Your task to perform on an android device: check the backup settings in the google photos Image 0: 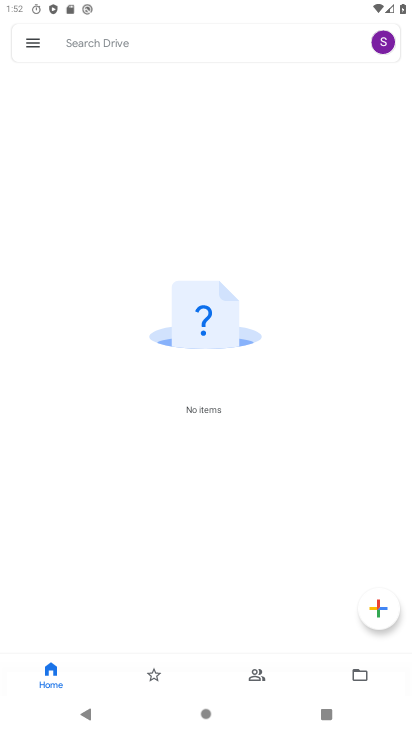
Step 0: click (0, 105)
Your task to perform on an android device: check the backup settings in the google photos Image 1: 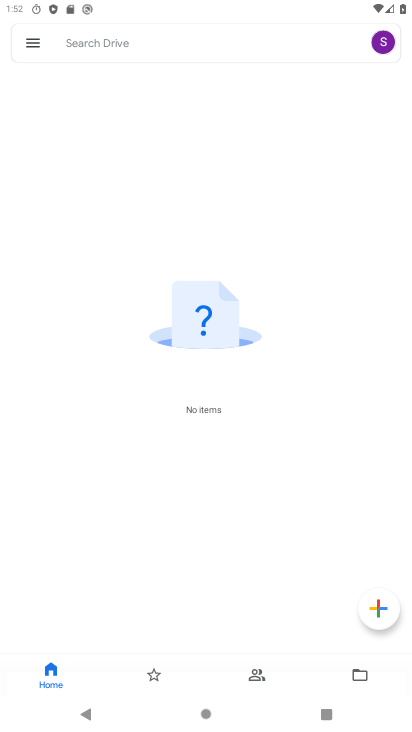
Step 1: drag from (280, 539) to (276, 414)
Your task to perform on an android device: check the backup settings in the google photos Image 2: 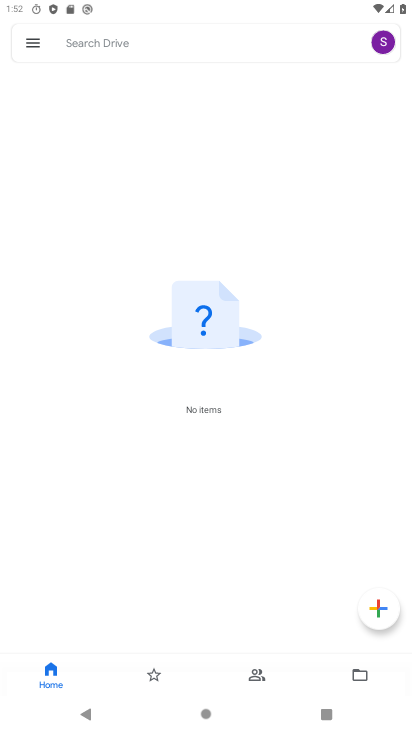
Step 2: drag from (274, 213) to (290, 572)
Your task to perform on an android device: check the backup settings in the google photos Image 3: 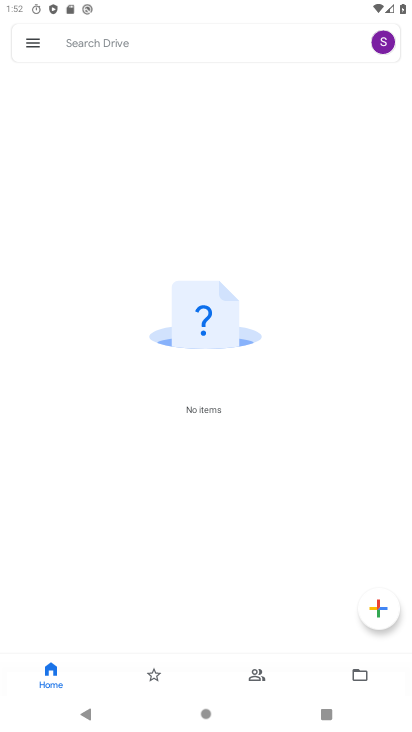
Step 3: drag from (229, 253) to (326, 723)
Your task to perform on an android device: check the backup settings in the google photos Image 4: 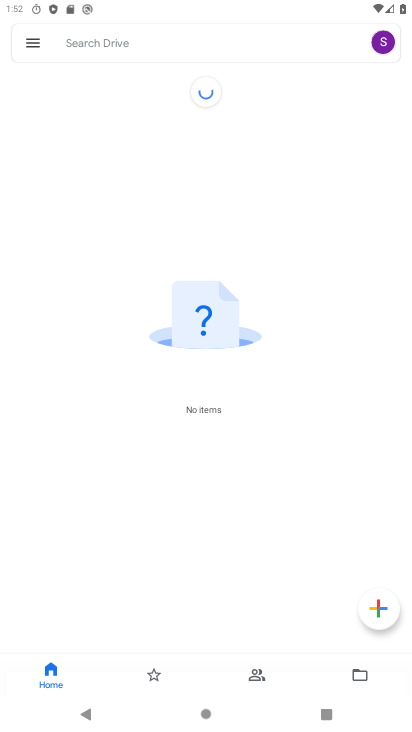
Step 4: drag from (248, 494) to (287, 258)
Your task to perform on an android device: check the backup settings in the google photos Image 5: 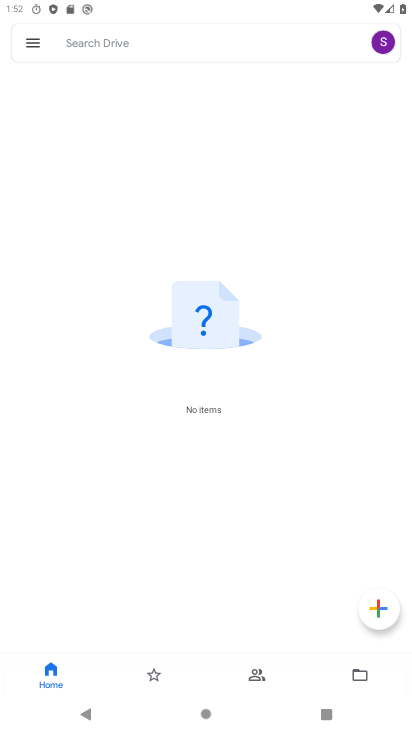
Step 5: drag from (261, 103) to (203, 454)
Your task to perform on an android device: check the backup settings in the google photos Image 6: 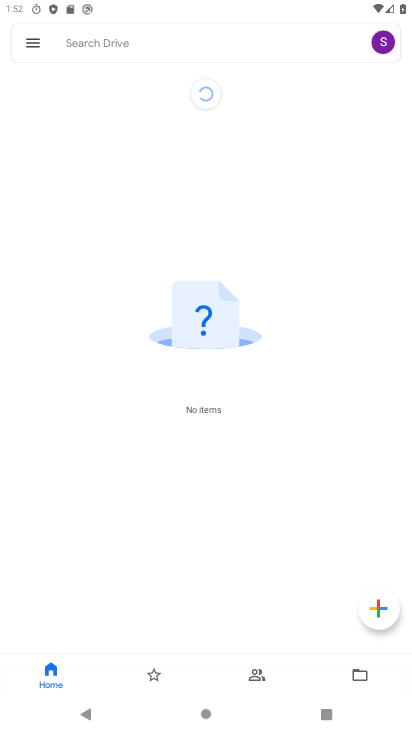
Step 6: drag from (255, 497) to (303, 317)
Your task to perform on an android device: check the backup settings in the google photos Image 7: 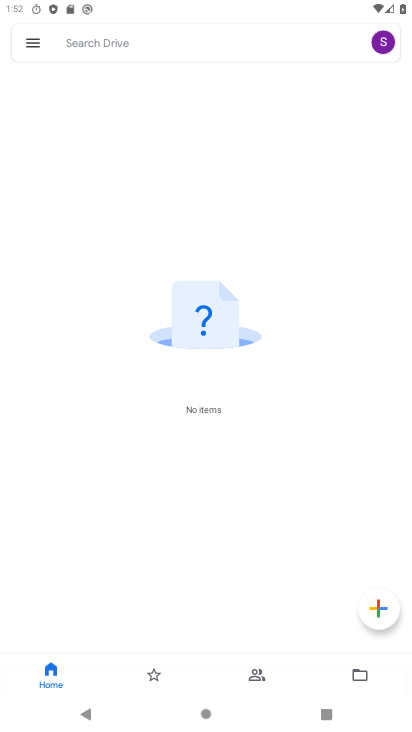
Step 7: drag from (278, 233) to (292, 671)
Your task to perform on an android device: check the backup settings in the google photos Image 8: 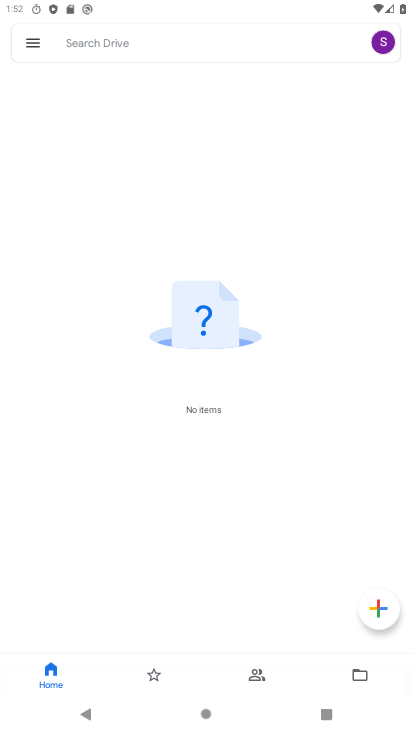
Step 8: drag from (66, 557) to (348, 141)
Your task to perform on an android device: check the backup settings in the google photos Image 9: 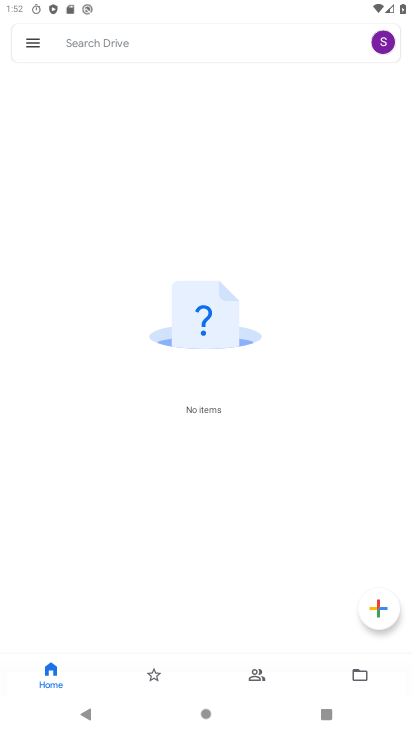
Step 9: press home button
Your task to perform on an android device: check the backup settings in the google photos Image 10: 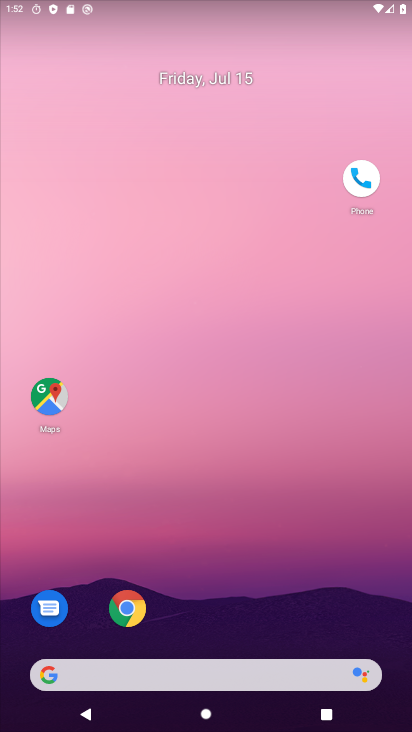
Step 10: drag from (176, 593) to (209, 184)
Your task to perform on an android device: check the backup settings in the google photos Image 11: 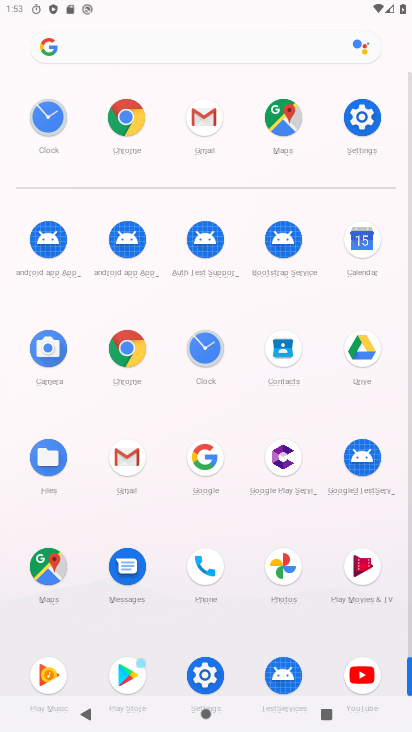
Step 11: click (285, 578)
Your task to perform on an android device: check the backup settings in the google photos Image 12: 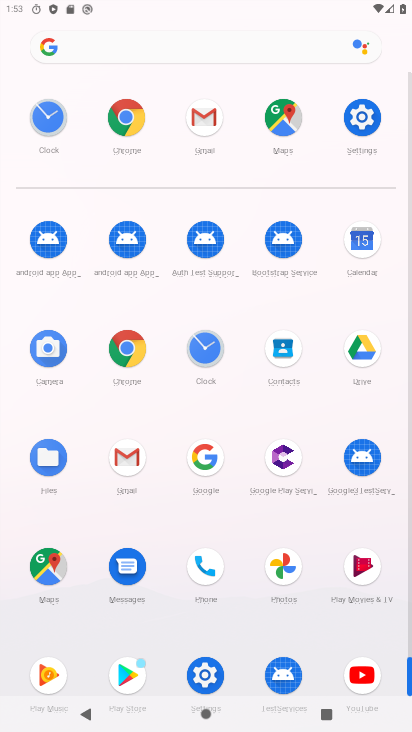
Step 12: click (285, 577)
Your task to perform on an android device: check the backup settings in the google photos Image 13: 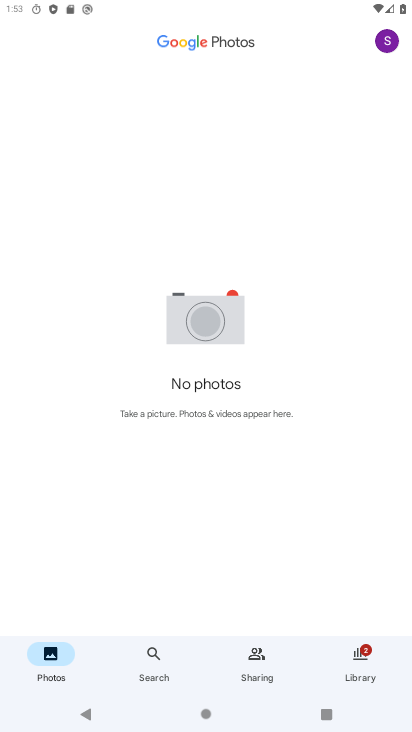
Step 13: drag from (236, 522) to (249, 379)
Your task to perform on an android device: check the backup settings in the google photos Image 14: 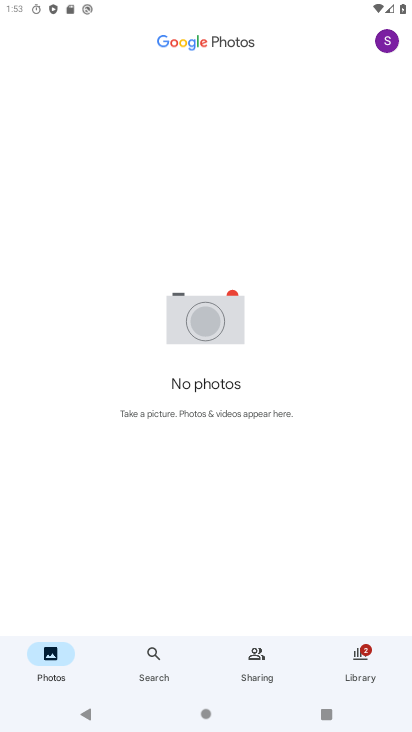
Step 14: click (393, 43)
Your task to perform on an android device: check the backup settings in the google photos Image 15: 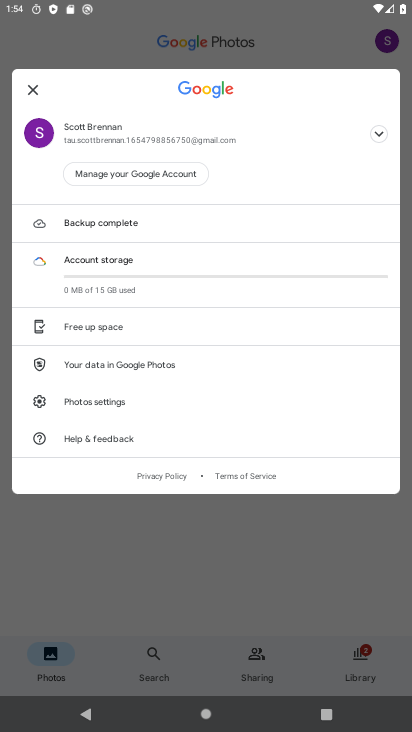
Step 15: click (103, 388)
Your task to perform on an android device: check the backup settings in the google photos Image 16: 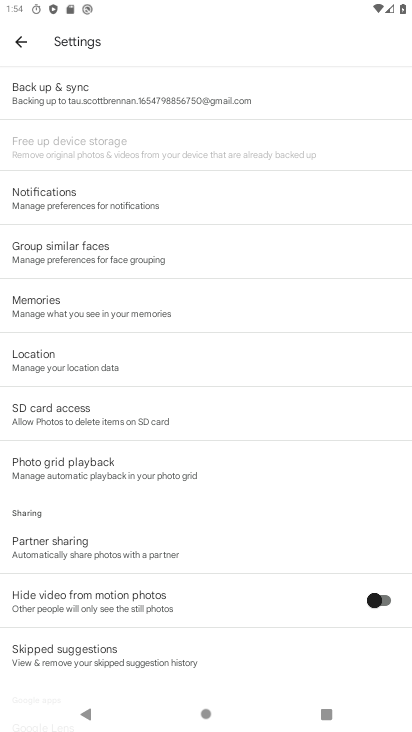
Step 16: click (81, 74)
Your task to perform on an android device: check the backup settings in the google photos Image 17: 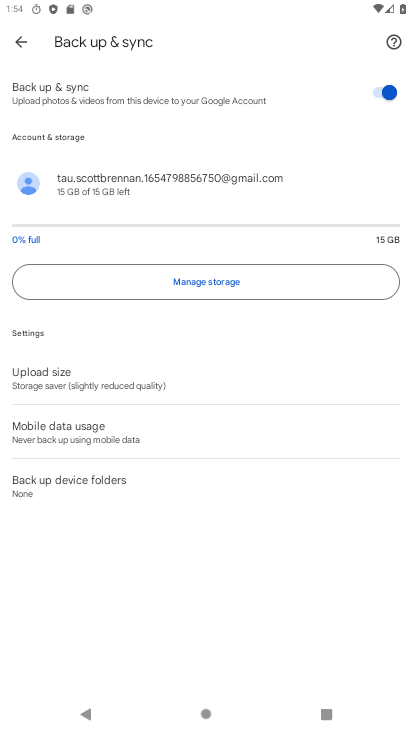
Step 17: task complete